Your task to perform on an android device: Search for Italian restaurants on Maps Image 0: 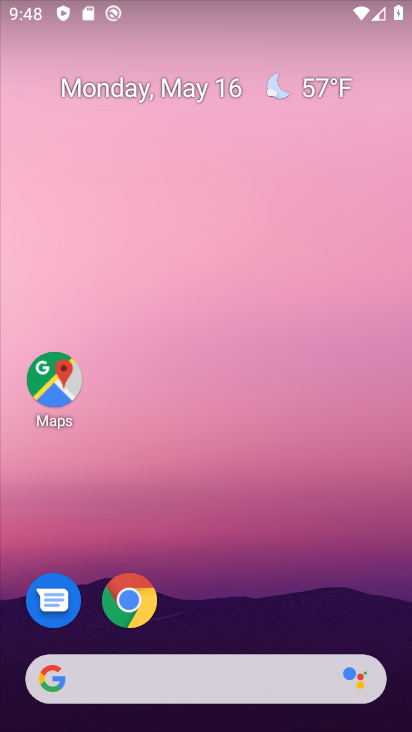
Step 0: drag from (322, 528) to (287, 89)
Your task to perform on an android device: Search for Italian restaurants on Maps Image 1: 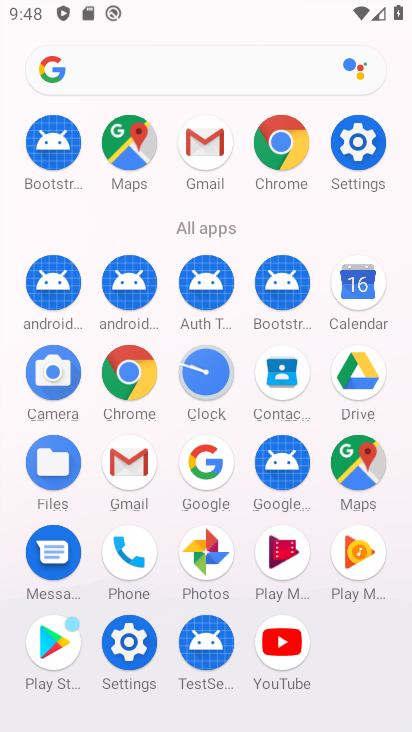
Step 1: click (354, 446)
Your task to perform on an android device: Search for Italian restaurants on Maps Image 2: 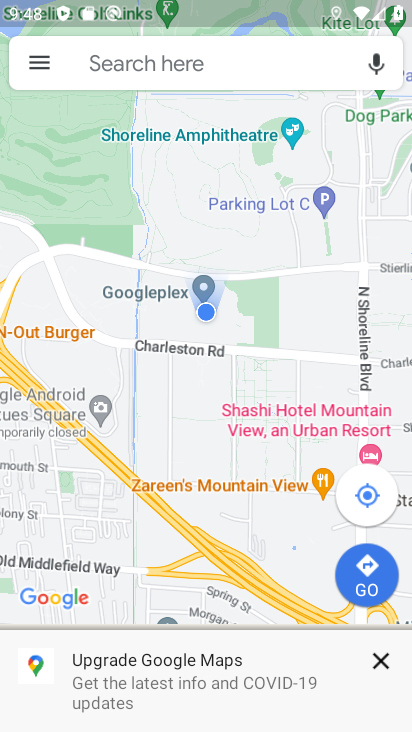
Step 2: click (162, 61)
Your task to perform on an android device: Search for Italian restaurants on Maps Image 3: 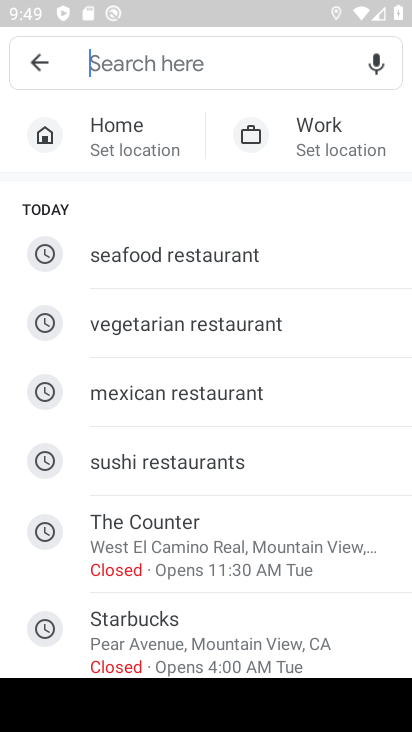
Step 3: type "italian restaurants "
Your task to perform on an android device: Search for Italian restaurants on Maps Image 4: 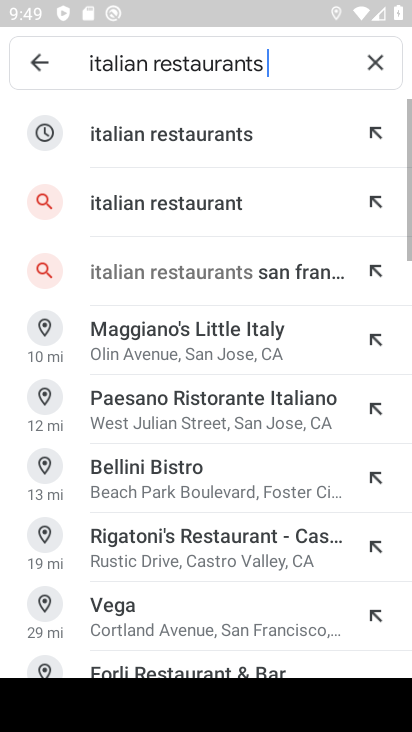
Step 4: click (189, 142)
Your task to perform on an android device: Search for Italian restaurants on Maps Image 5: 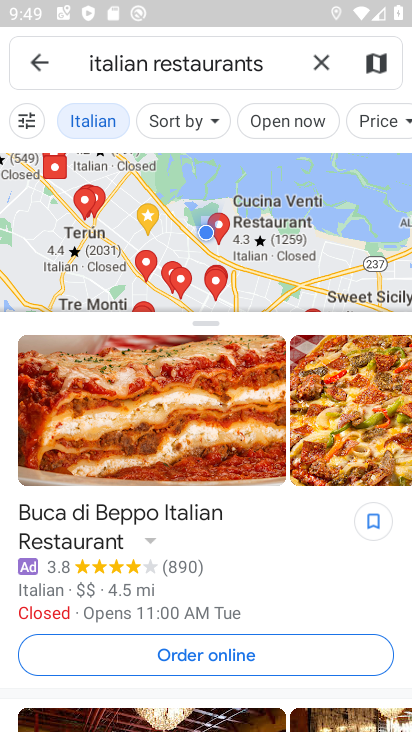
Step 5: task complete